Your task to perform on an android device: toggle priority inbox in the gmail app Image 0: 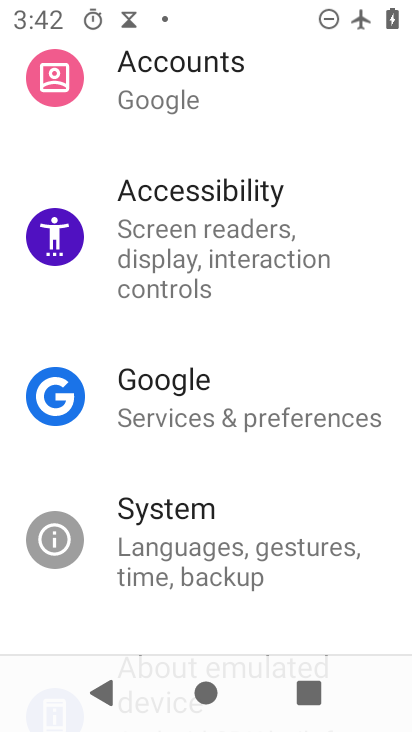
Step 0: drag from (349, 601) to (401, 219)
Your task to perform on an android device: toggle priority inbox in the gmail app Image 1: 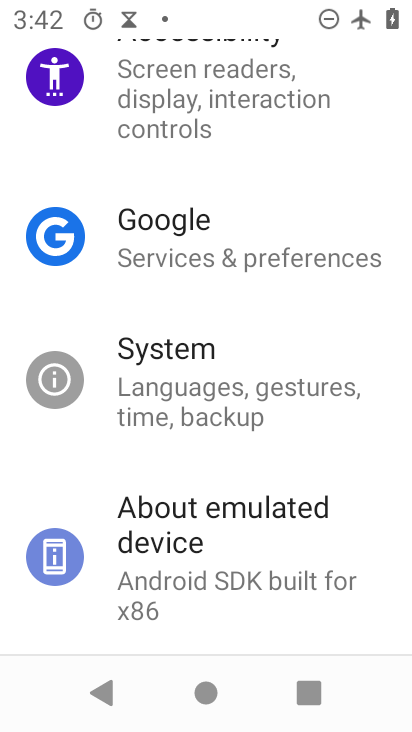
Step 1: press home button
Your task to perform on an android device: toggle priority inbox in the gmail app Image 2: 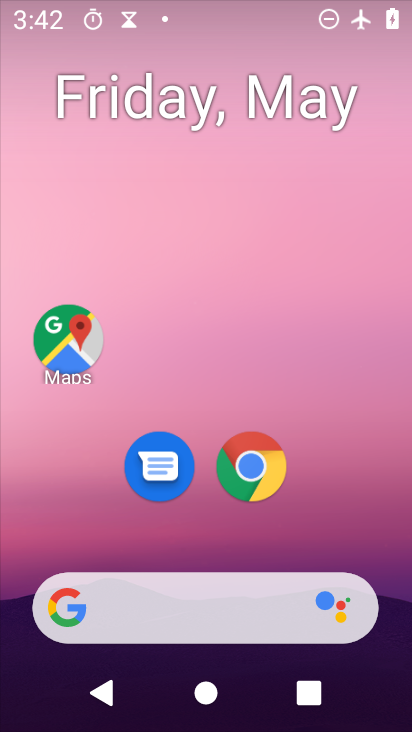
Step 2: drag from (339, 492) to (348, 122)
Your task to perform on an android device: toggle priority inbox in the gmail app Image 3: 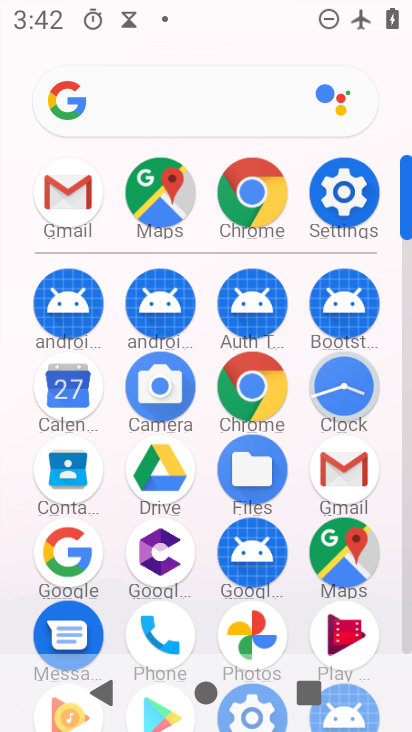
Step 3: click (266, 188)
Your task to perform on an android device: toggle priority inbox in the gmail app Image 4: 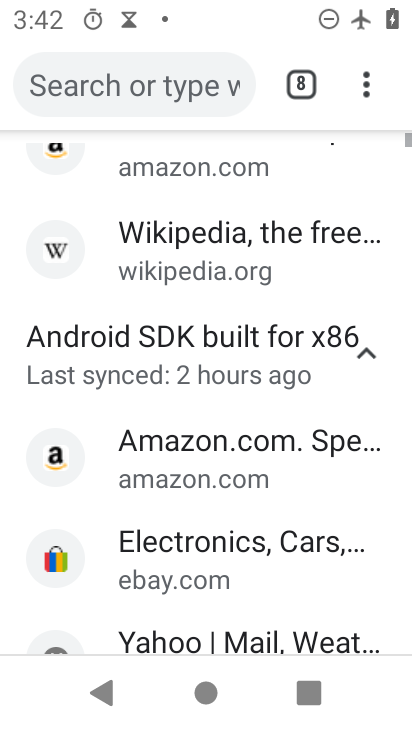
Step 4: drag from (303, 165) to (289, 671)
Your task to perform on an android device: toggle priority inbox in the gmail app Image 5: 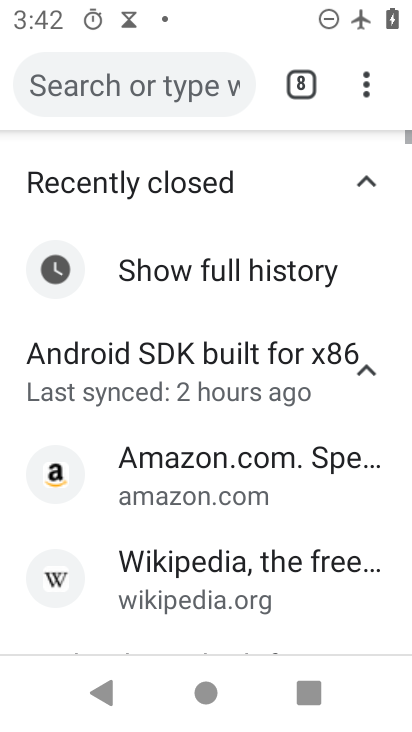
Step 5: drag from (367, 96) to (76, 202)
Your task to perform on an android device: toggle priority inbox in the gmail app Image 6: 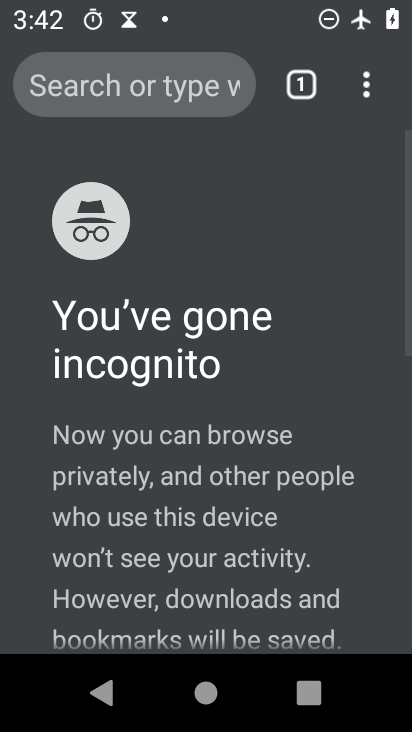
Step 6: press back button
Your task to perform on an android device: toggle priority inbox in the gmail app Image 7: 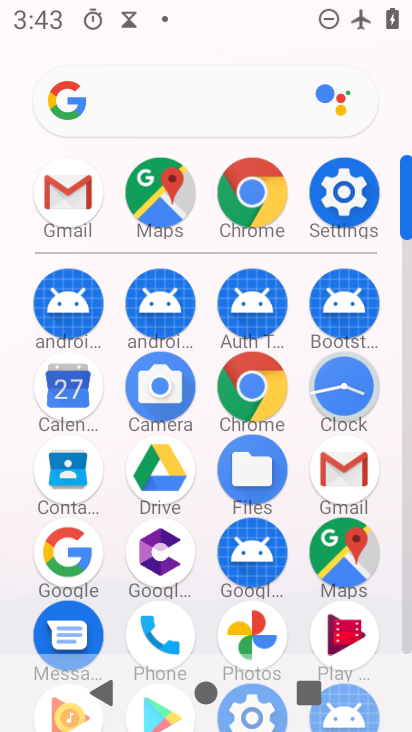
Step 7: click (84, 189)
Your task to perform on an android device: toggle priority inbox in the gmail app Image 8: 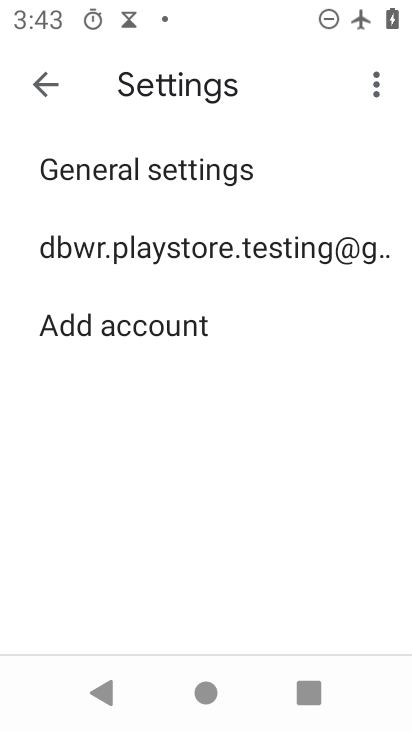
Step 8: click (44, 98)
Your task to perform on an android device: toggle priority inbox in the gmail app Image 9: 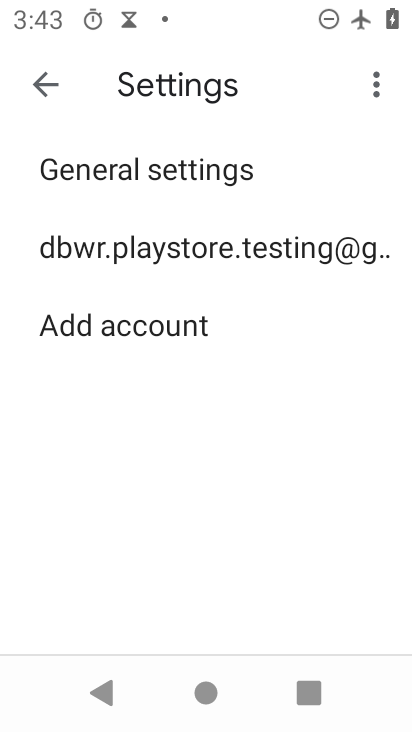
Step 9: click (44, 99)
Your task to perform on an android device: toggle priority inbox in the gmail app Image 10: 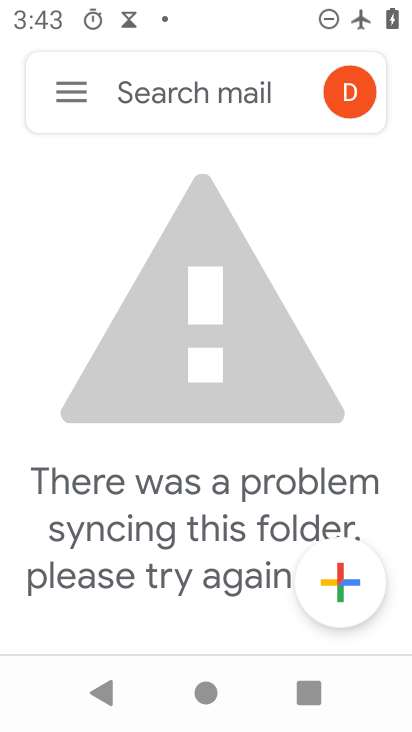
Step 10: click (55, 100)
Your task to perform on an android device: toggle priority inbox in the gmail app Image 11: 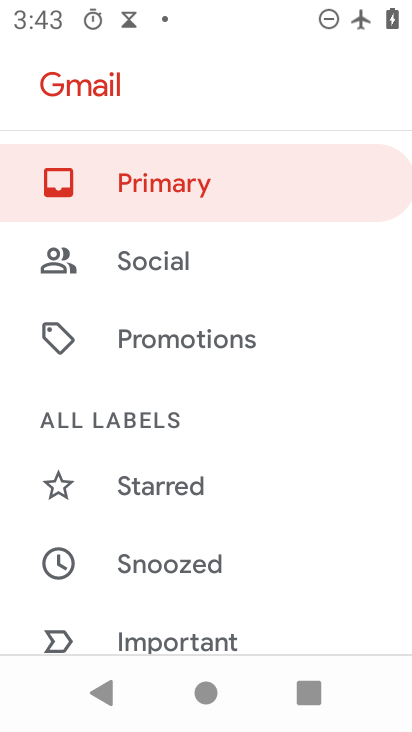
Step 11: drag from (237, 595) to (178, 217)
Your task to perform on an android device: toggle priority inbox in the gmail app Image 12: 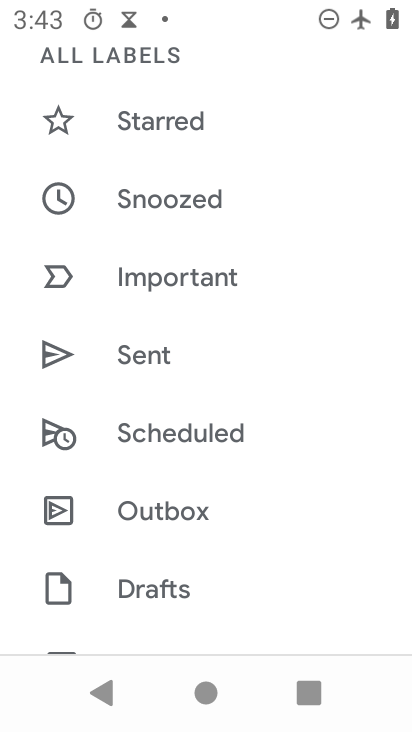
Step 12: drag from (273, 553) to (286, 98)
Your task to perform on an android device: toggle priority inbox in the gmail app Image 13: 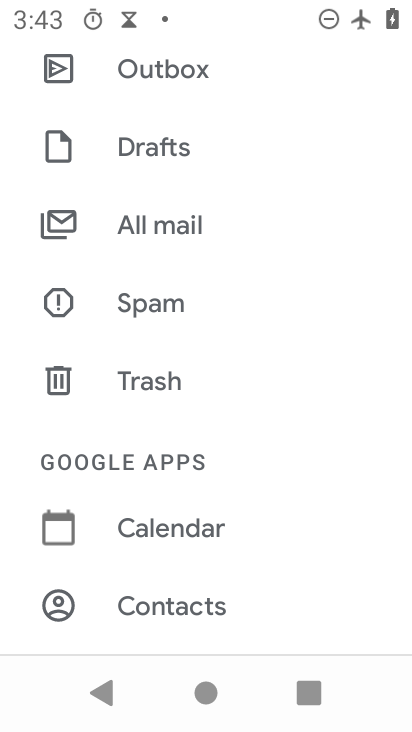
Step 13: drag from (249, 494) to (221, 114)
Your task to perform on an android device: toggle priority inbox in the gmail app Image 14: 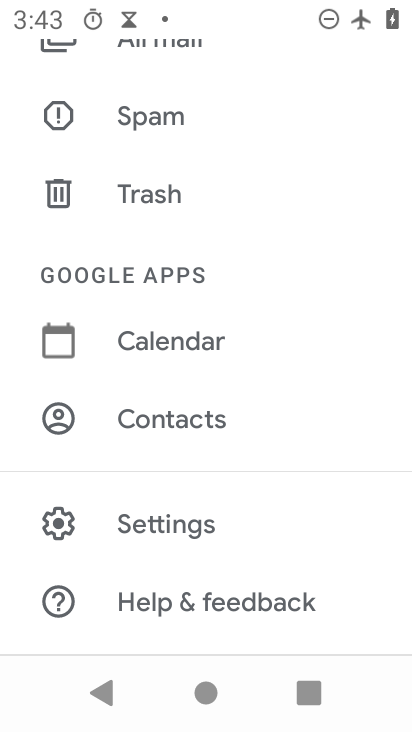
Step 14: click (155, 512)
Your task to perform on an android device: toggle priority inbox in the gmail app Image 15: 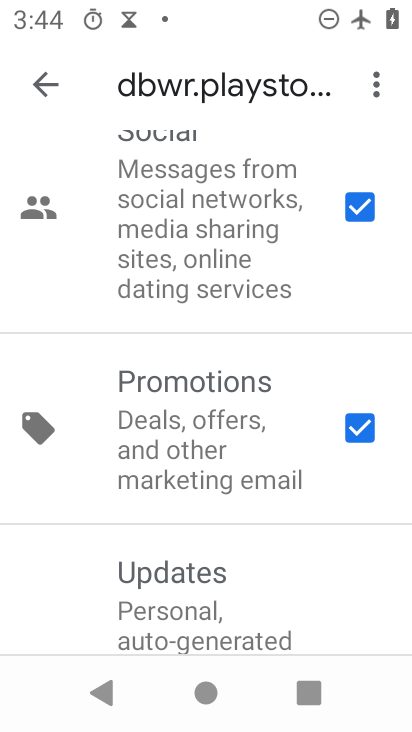
Step 15: drag from (237, 572) to (301, 45)
Your task to perform on an android device: toggle priority inbox in the gmail app Image 16: 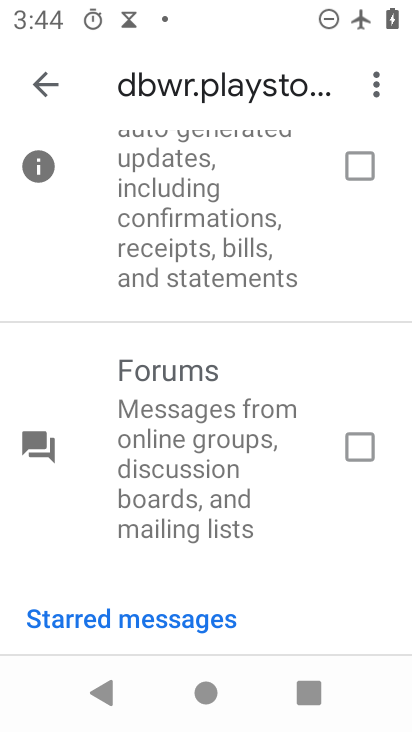
Step 16: drag from (307, 321) to (360, 705)
Your task to perform on an android device: toggle priority inbox in the gmail app Image 17: 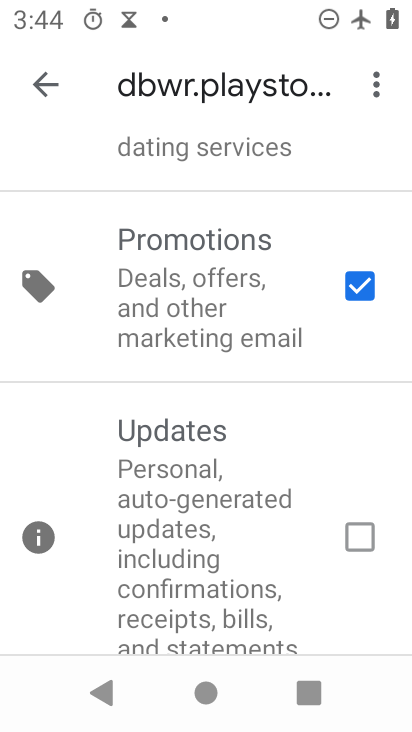
Step 17: drag from (210, 257) to (276, 625)
Your task to perform on an android device: toggle priority inbox in the gmail app Image 18: 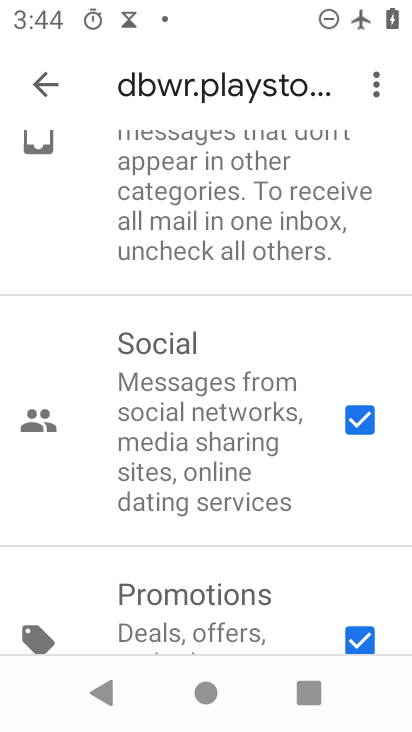
Step 18: drag from (204, 223) to (282, 616)
Your task to perform on an android device: toggle priority inbox in the gmail app Image 19: 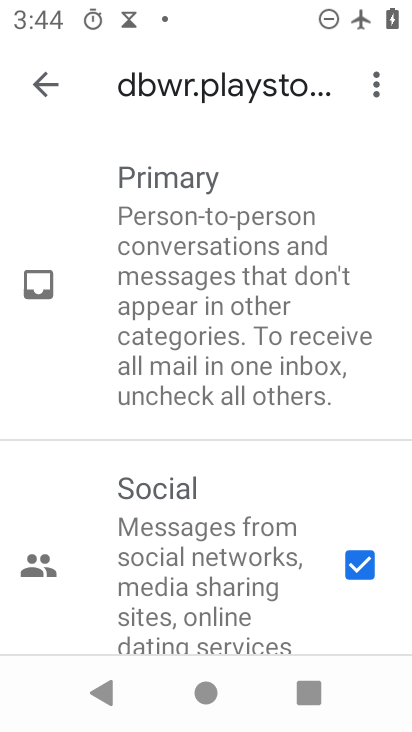
Step 19: click (48, 72)
Your task to perform on an android device: toggle priority inbox in the gmail app Image 20: 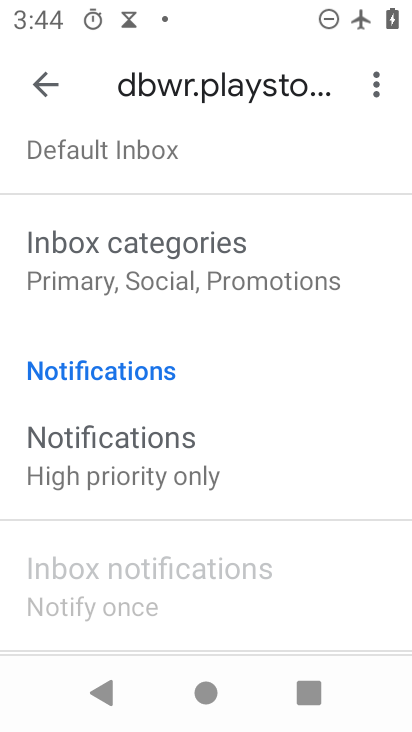
Step 20: click (136, 272)
Your task to perform on an android device: toggle priority inbox in the gmail app Image 21: 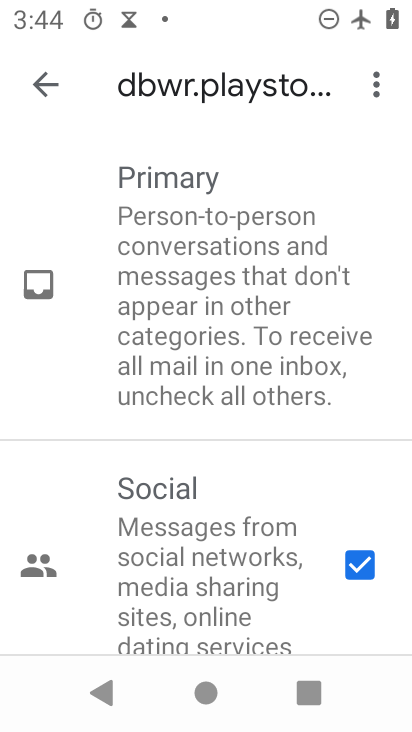
Step 21: drag from (286, 581) to (297, 220)
Your task to perform on an android device: toggle priority inbox in the gmail app Image 22: 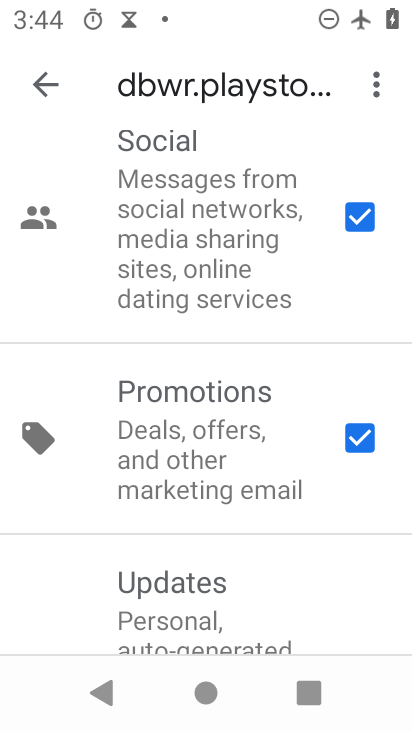
Step 22: drag from (250, 540) to (294, 157)
Your task to perform on an android device: toggle priority inbox in the gmail app Image 23: 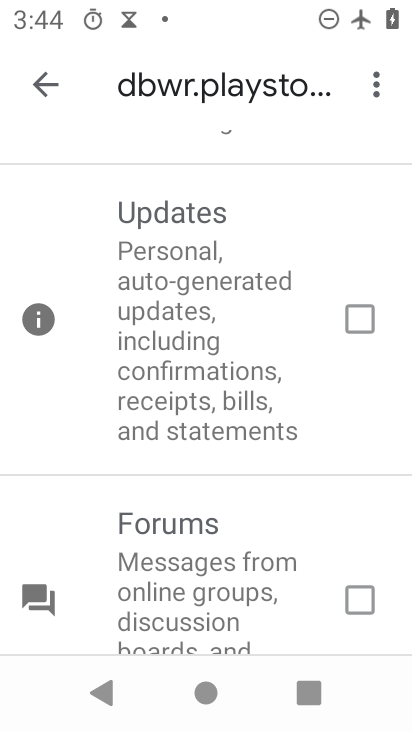
Step 23: drag from (161, 219) to (280, 686)
Your task to perform on an android device: toggle priority inbox in the gmail app Image 24: 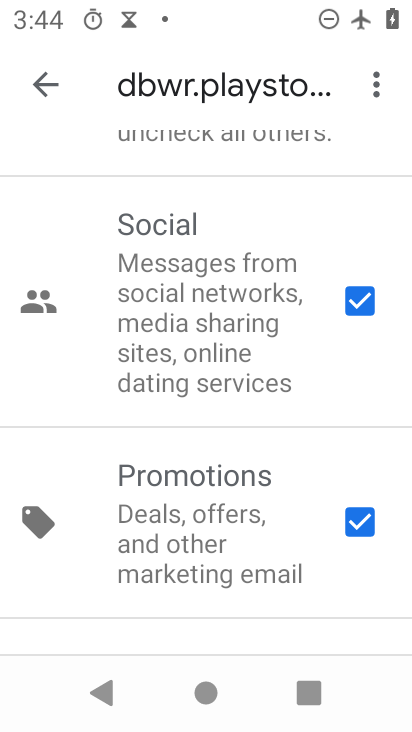
Step 24: drag from (296, 279) to (339, 597)
Your task to perform on an android device: toggle priority inbox in the gmail app Image 25: 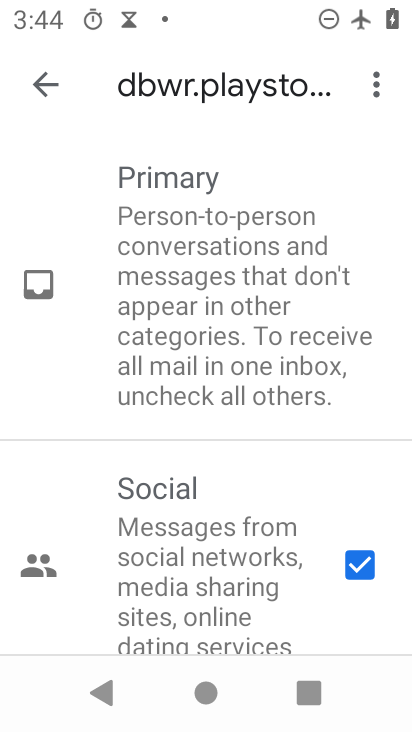
Step 25: drag from (259, 197) to (336, 593)
Your task to perform on an android device: toggle priority inbox in the gmail app Image 26: 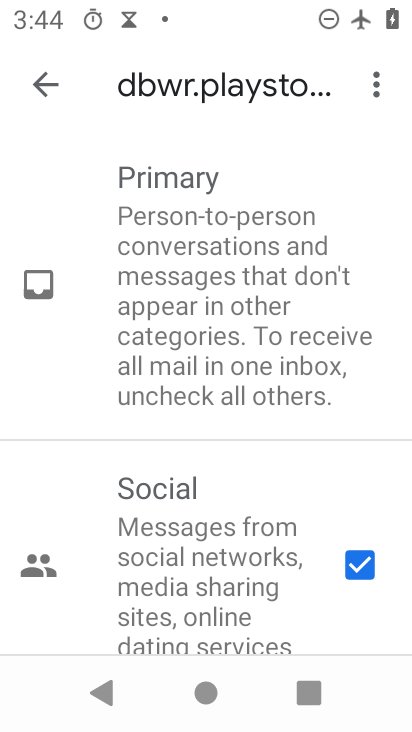
Step 26: click (34, 77)
Your task to perform on an android device: toggle priority inbox in the gmail app Image 27: 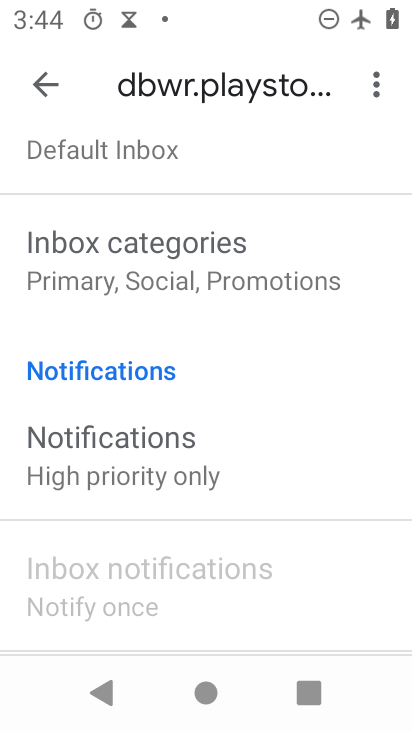
Step 27: drag from (186, 349) to (276, 623)
Your task to perform on an android device: toggle priority inbox in the gmail app Image 28: 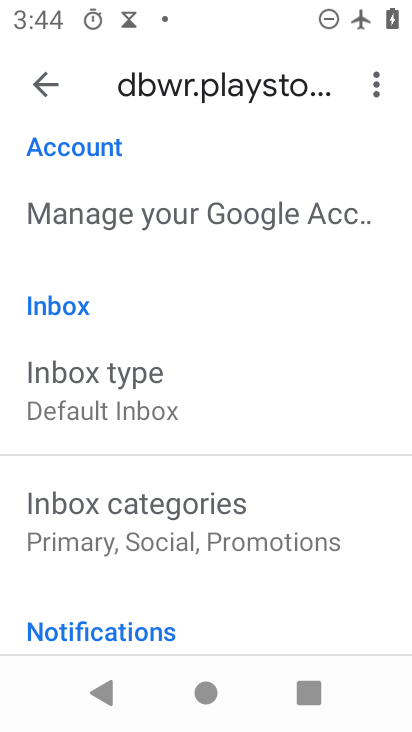
Step 28: drag from (233, 332) to (323, 625)
Your task to perform on an android device: toggle priority inbox in the gmail app Image 29: 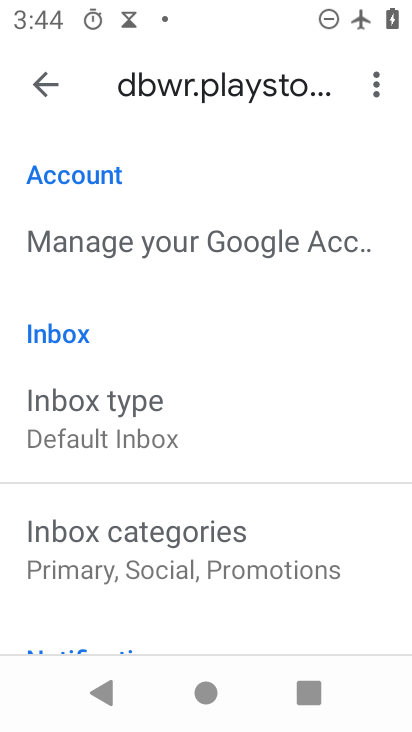
Step 29: click (120, 416)
Your task to perform on an android device: toggle priority inbox in the gmail app Image 30: 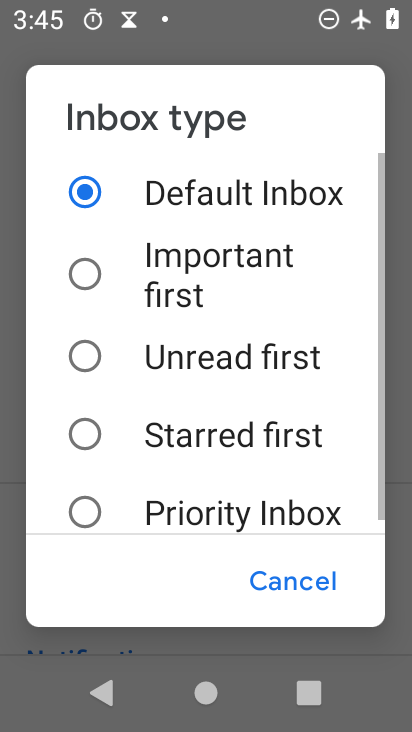
Step 30: click (191, 515)
Your task to perform on an android device: toggle priority inbox in the gmail app Image 31: 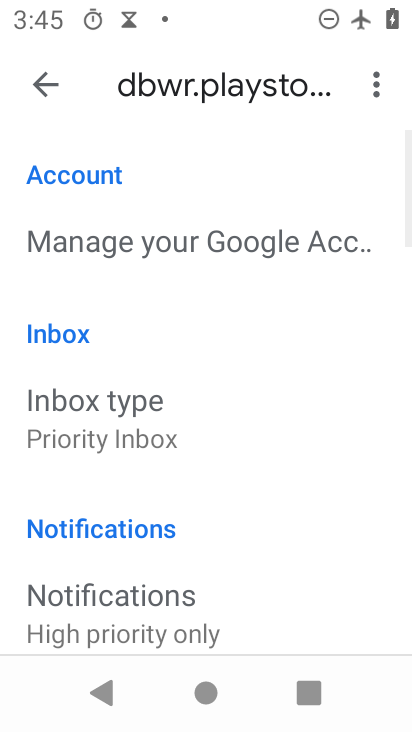
Step 31: task complete